Your task to perform on an android device: What's the weather going to be this weekend? Image 0: 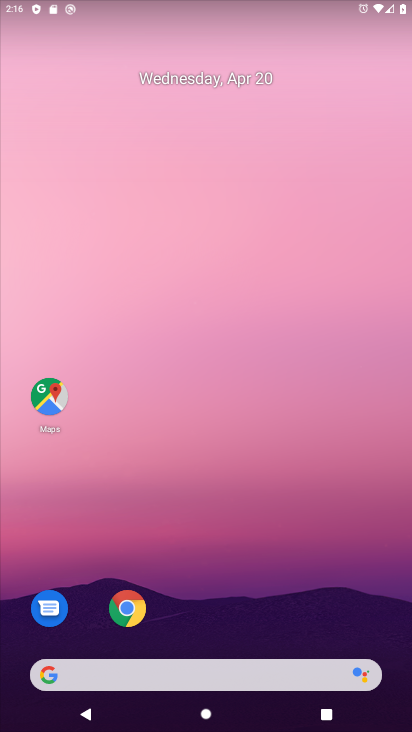
Step 0: drag from (297, 590) to (352, 74)
Your task to perform on an android device: What's the weather going to be this weekend? Image 1: 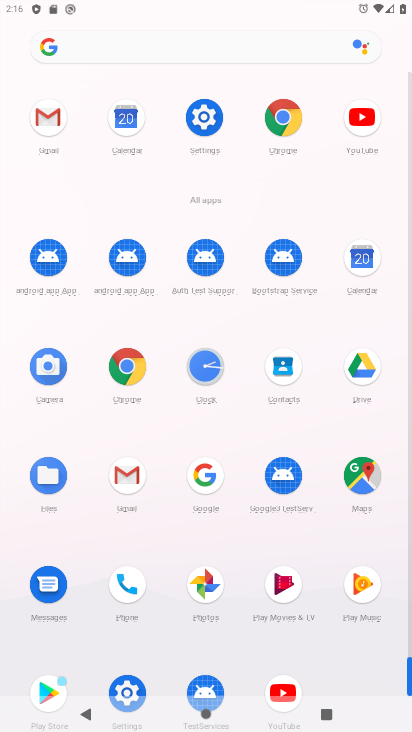
Step 1: click (135, 47)
Your task to perform on an android device: What's the weather going to be this weekend? Image 2: 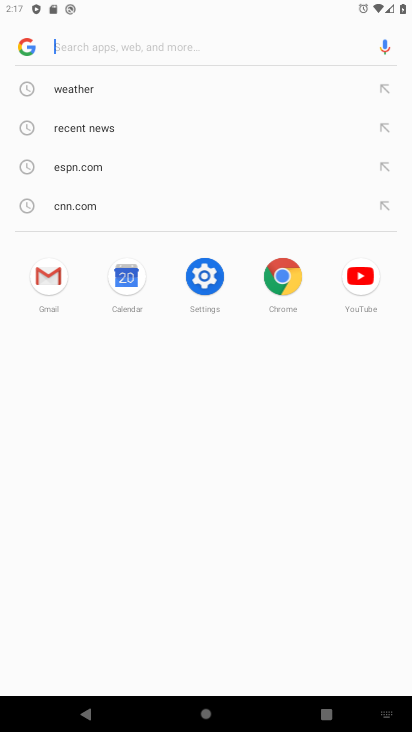
Step 2: type "what's the weather going to be this weekend"
Your task to perform on an android device: What's the weather going to be this weekend? Image 3: 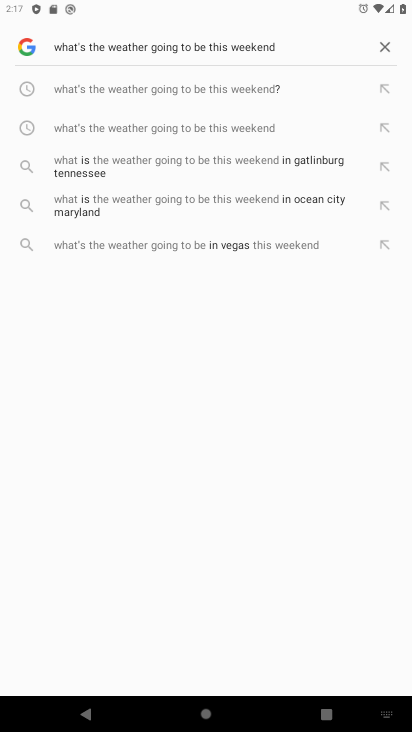
Step 3: click (227, 88)
Your task to perform on an android device: What's the weather going to be this weekend? Image 4: 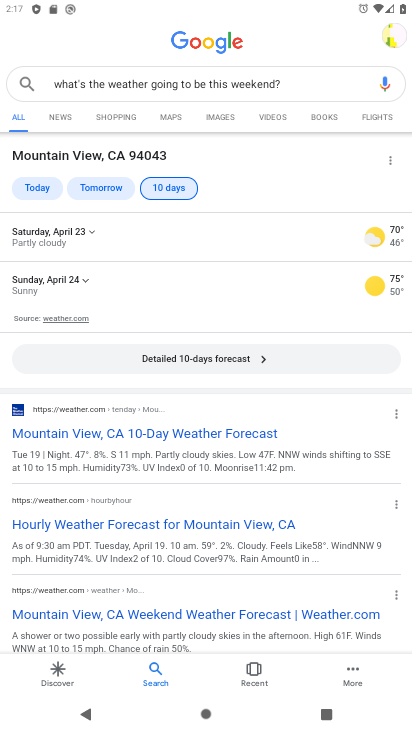
Step 4: task complete